Your task to perform on an android device: Open ESPN.com Image 0: 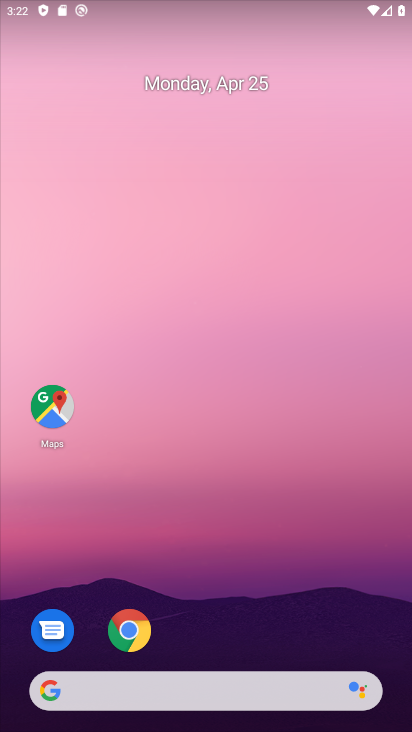
Step 0: click (132, 648)
Your task to perform on an android device: Open ESPN.com Image 1: 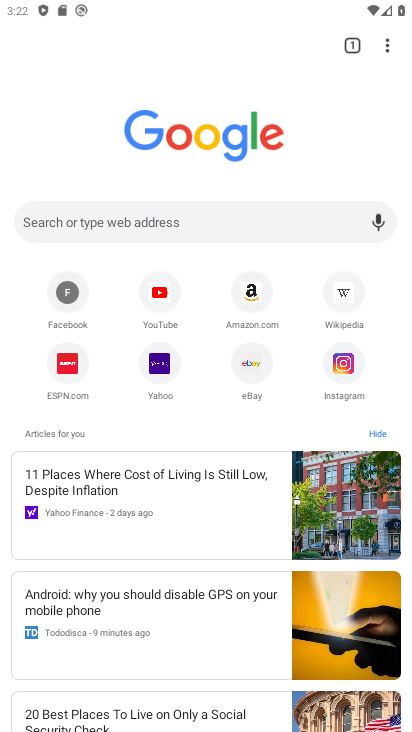
Step 1: click (85, 372)
Your task to perform on an android device: Open ESPN.com Image 2: 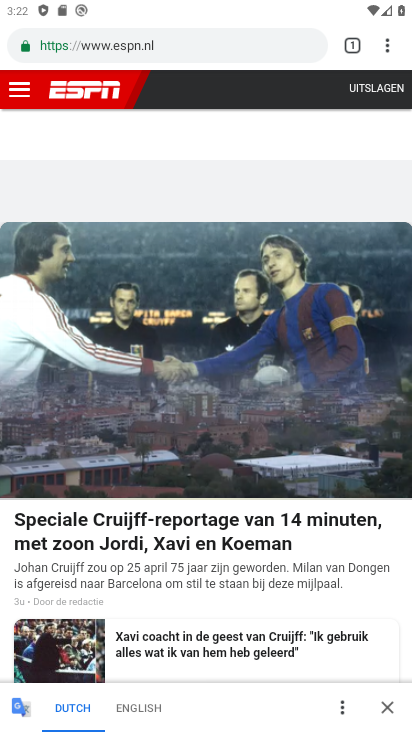
Step 2: task complete